Your task to perform on an android device: Go to sound settings Image 0: 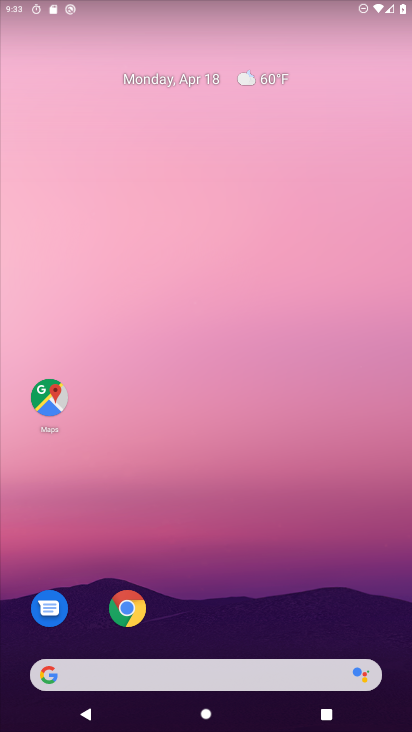
Step 0: click (296, 152)
Your task to perform on an android device: Go to sound settings Image 1: 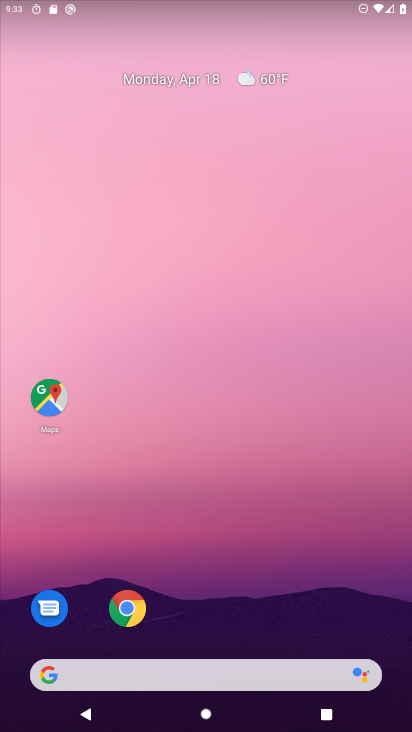
Step 1: drag from (306, 95) to (296, 56)
Your task to perform on an android device: Go to sound settings Image 2: 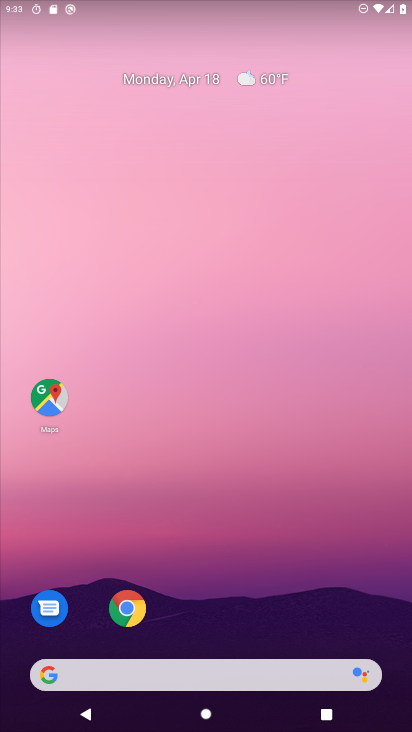
Step 2: drag from (365, 593) to (350, 66)
Your task to perform on an android device: Go to sound settings Image 3: 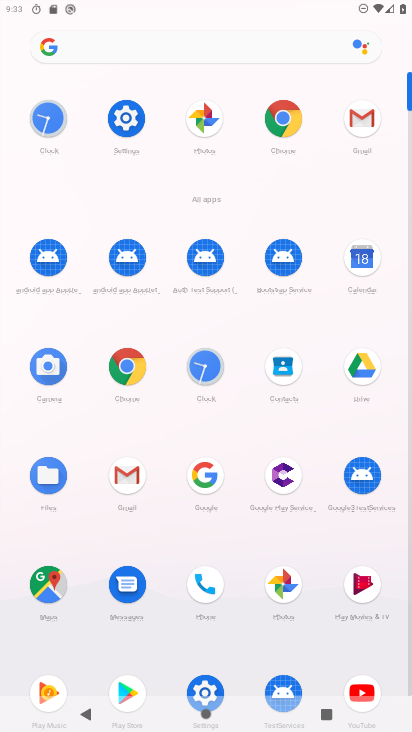
Step 3: click (126, 127)
Your task to perform on an android device: Go to sound settings Image 4: 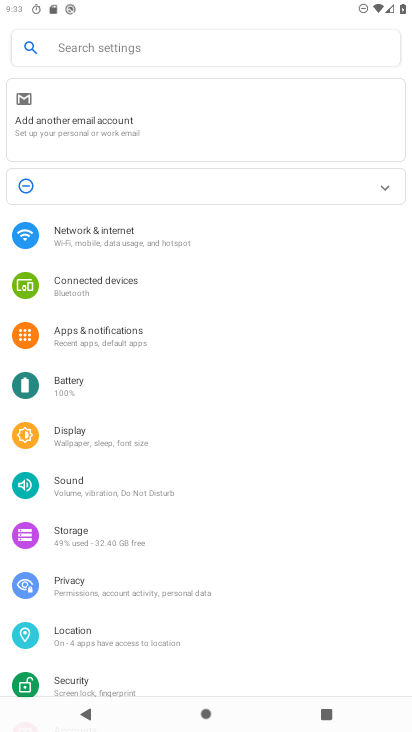
Step 4: click (75, 483)
Your task to perform on an android device: Go to sound settings Image 5: 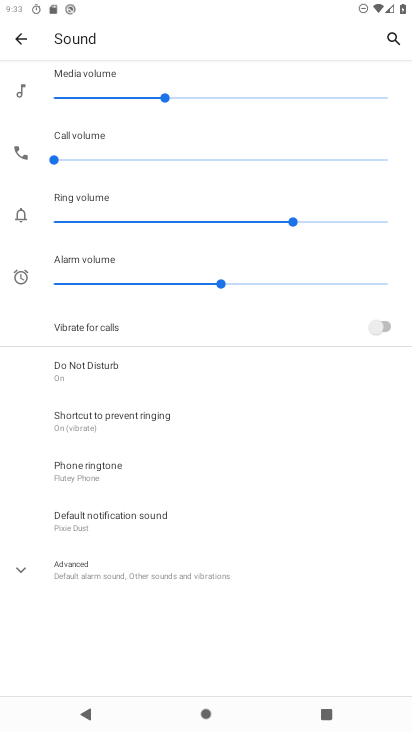
Step 5: task complete